Your task to perform on an android device: turn on sleep mode Image 0: 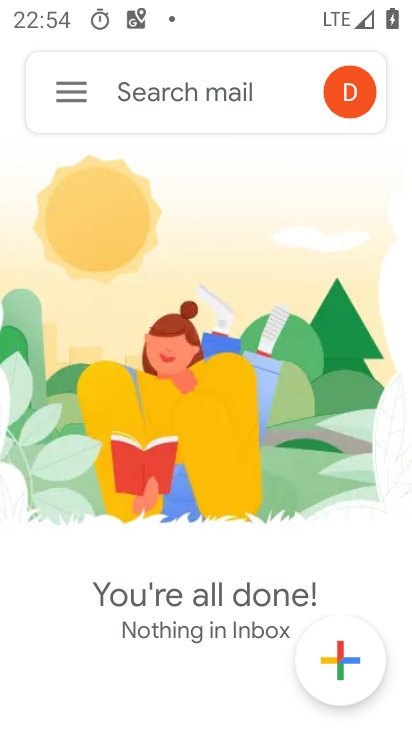
Step 0: press home button
Your task to perform on an android device: turn on sleep mode Image 1: 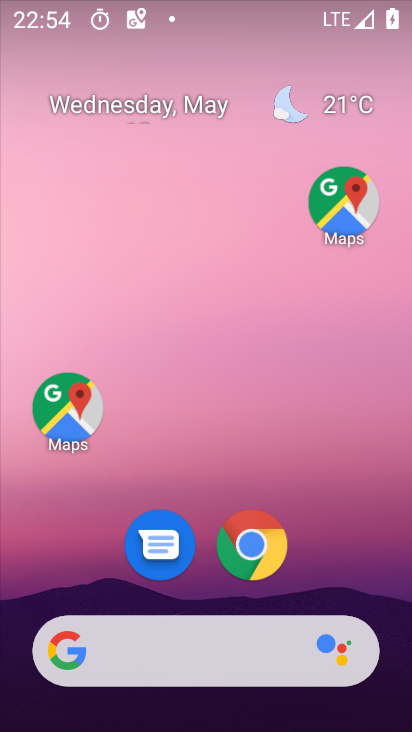
Step 1: drag from (206, 601) to (269, 60)
Your task to perform on an android device: turn on sleep mode Image 2: 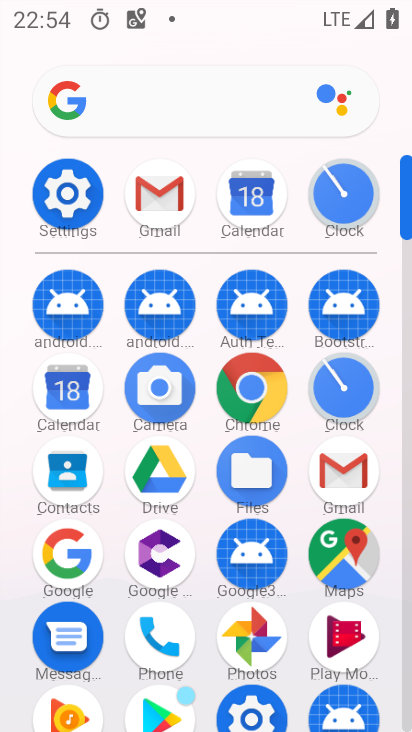
Step 2: click (69, 191)
Your task to perform on an android device: turn on sleep mode Image 3: 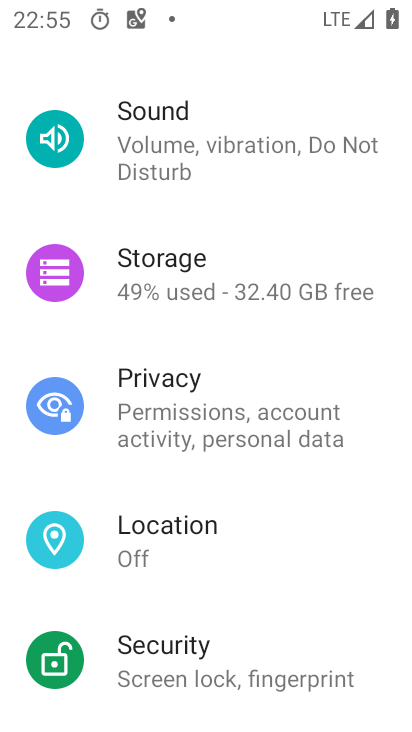
Step 3: drag from (239, 486) to (195, 642)
Your task to perform on an android device: turn on sleep mode Image 4: 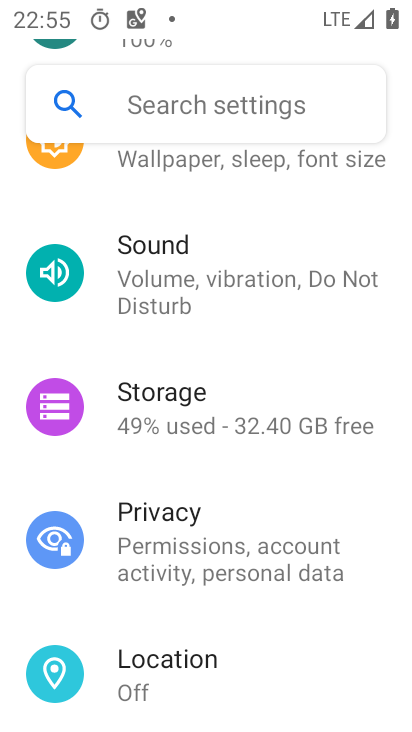
Step 4: drag from (188, 342) to (194, 430)
Your task to perform on an android device: turn on sleep mode Image 5: 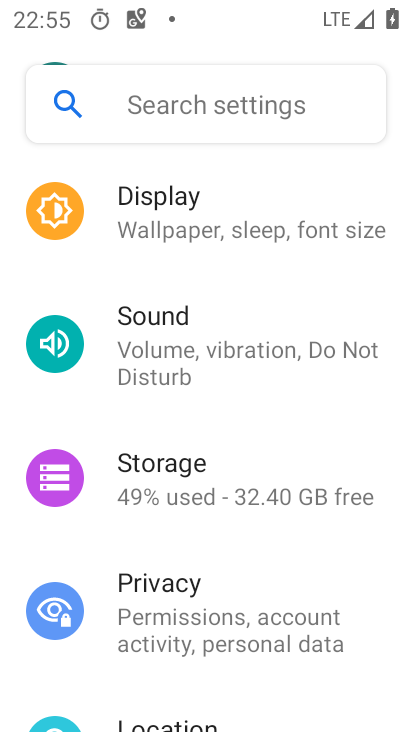
Step 5: drag from (216, 342) to (185, 547)
Your task to perform on an android device: turn on sleep mode Image 6: 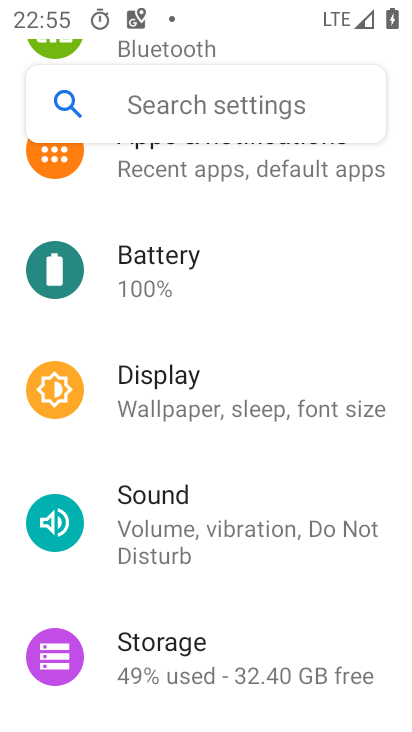
Step 6: drag from (277, 296) to (268, 518)
Your task to perform on an android device: turn on sleep mode Image 7: 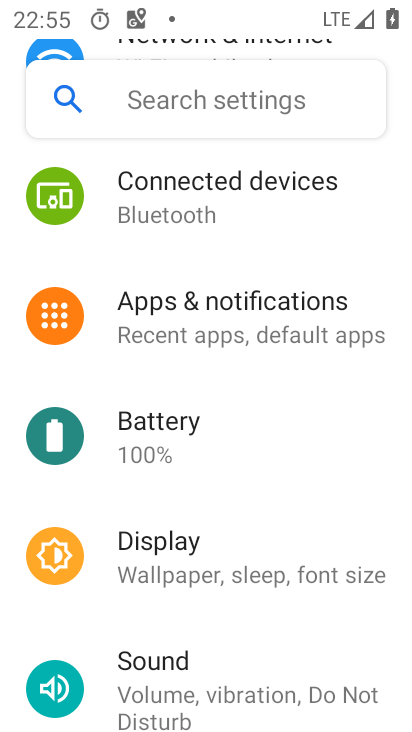
Step 7: drag from (284, 274) to (297, 421)
Your task to perform on an android device: turn on sleep mode Image 8: 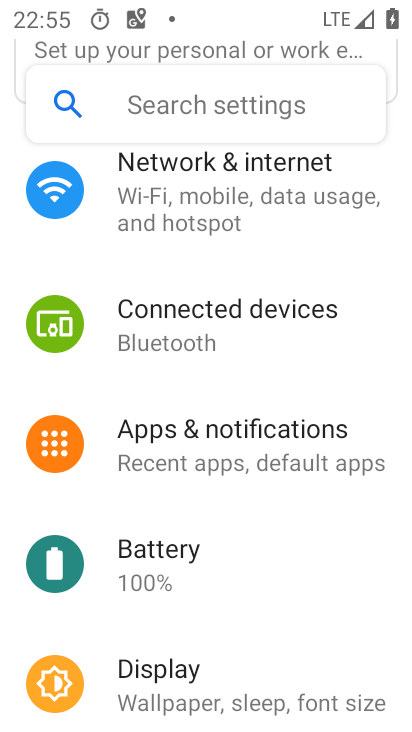
Step 8: drag from (327, 254) to (315, 436)
Your task to perform on an android device: turn on sleep mode Image 9: 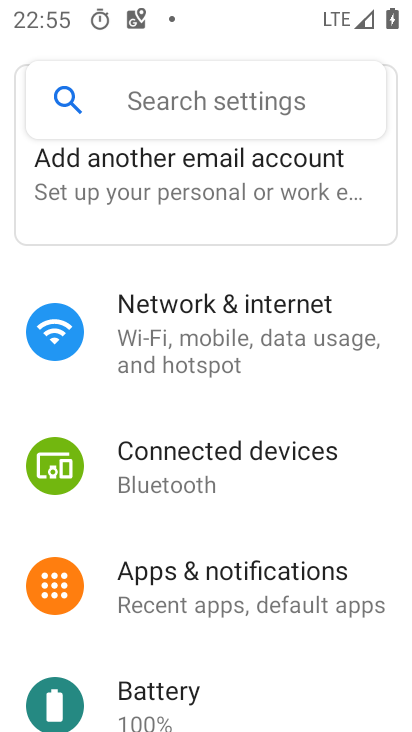
Step 9: drag from (309, 270) to (297, 537)
Your task to perform on an android device: turn on sleep mode Image 10: 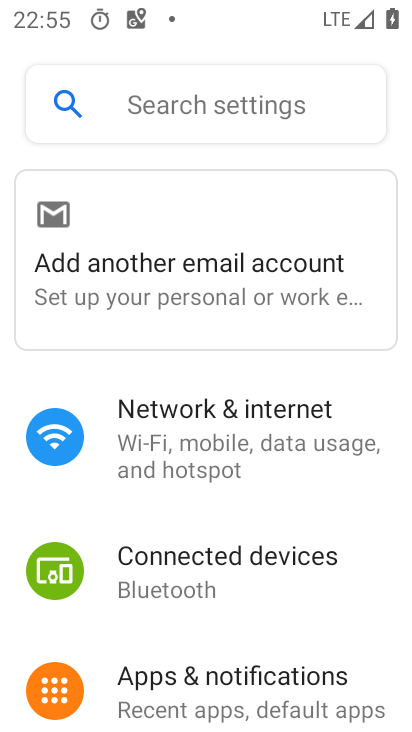
Step 10: drag from (271, 558) to (272, 308)
Your task to perform on an android device: turn on sleep mode Image 11: 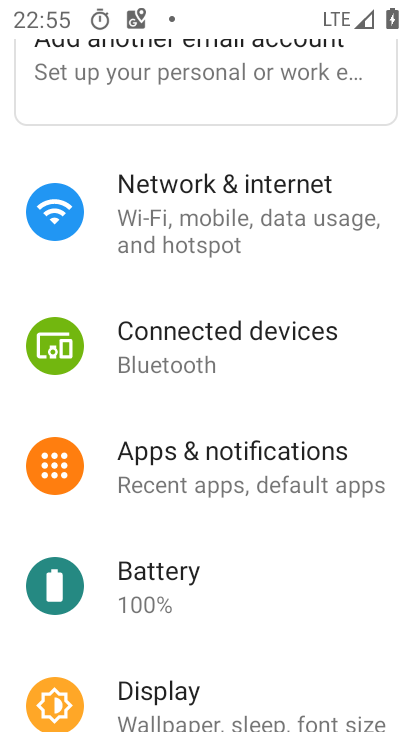
Step 11: drag from (267, 583) to (298, 336)
Your task to perform on an android device: turn on sleep mode Image 12: 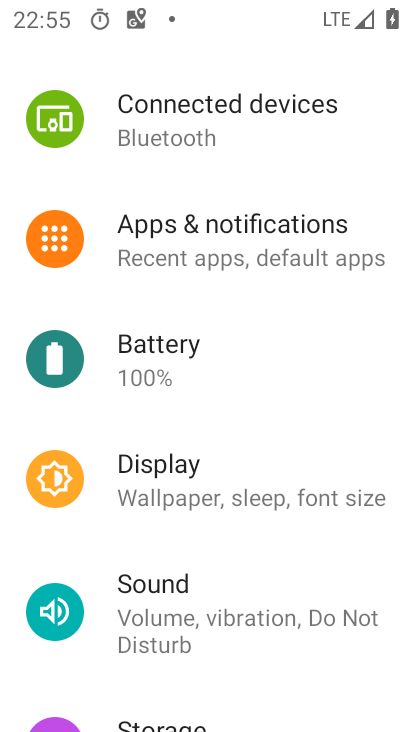
Step 12: click (259, 464)
Your task to perform on an android device: turn on sleep mode Image 13: 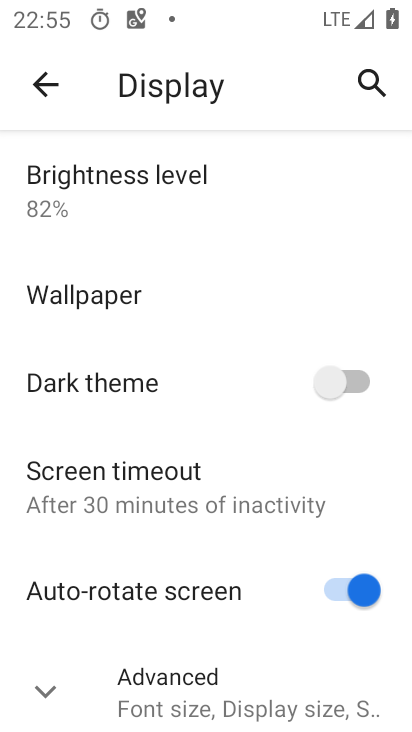
Step 13: click (214, 697)
Your task to perform on an android device: turn on sleep mode Image 14: 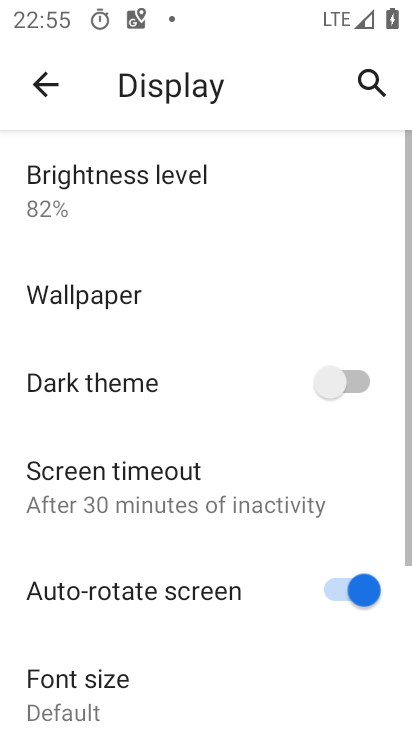
Step 14: task complete